Your task to perform on an android device: Open Maps and search for coffee Image 0: 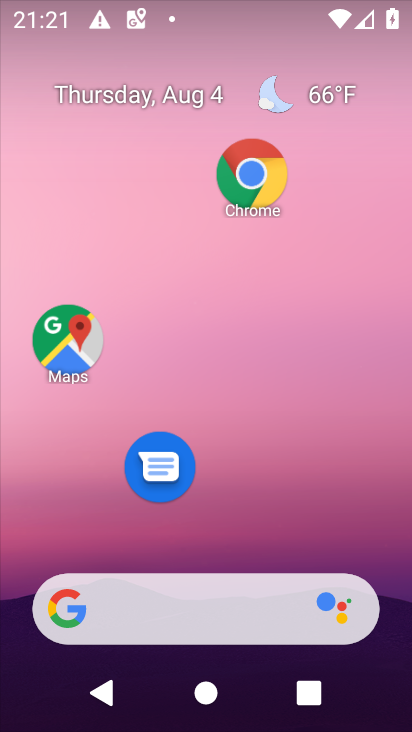
Step 0: drag from (299, 523) to (332, 40)
Your task to perform on an android device: Open Maps and search for coffee Image 1: 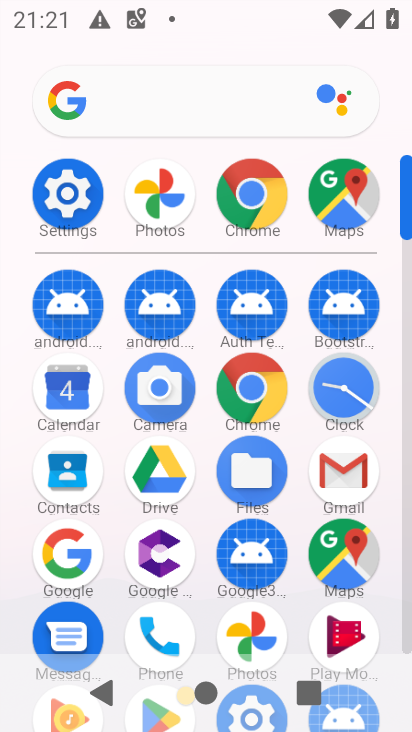
Step 1: click (350, 197)
Your task to perform on an android device: Open Maps and search for coffee Image 2: 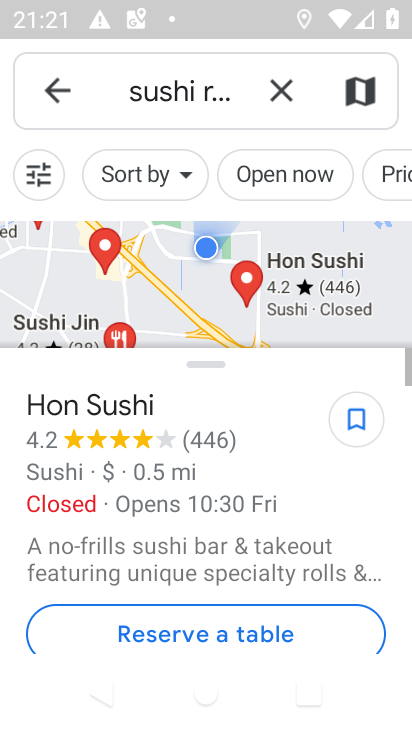
Step 2: click (270, 96)
Your task to perform on an android device: Open Maps and search for coffee Image 3: 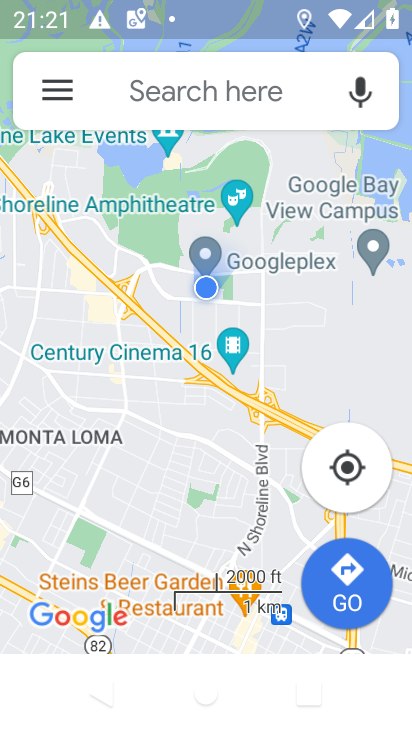
Step 3: click (226, 76)
Your task to perform on an android device: Open Maps and search for coffee Image 4: 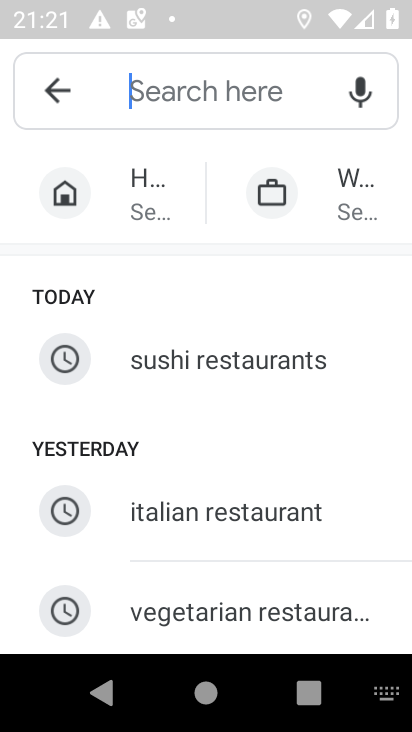
Step 4: type "coffee"
Your task to perform on an android device: Open Maps and search for coffee Image 5: 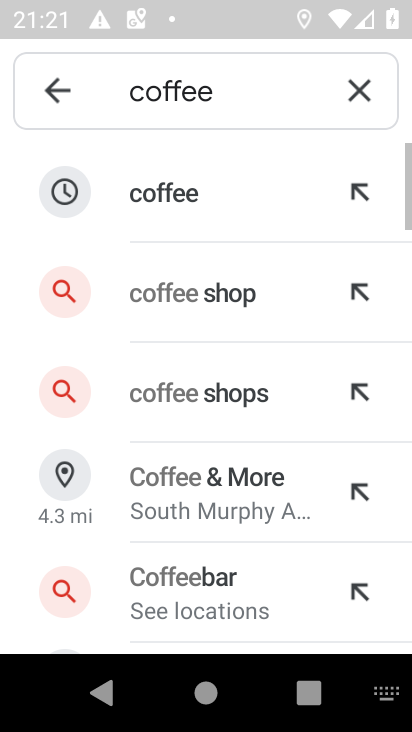
Step 5: click (155, 190)
Your task to perform on an android device: Open Maps and search for coffee Image 6: 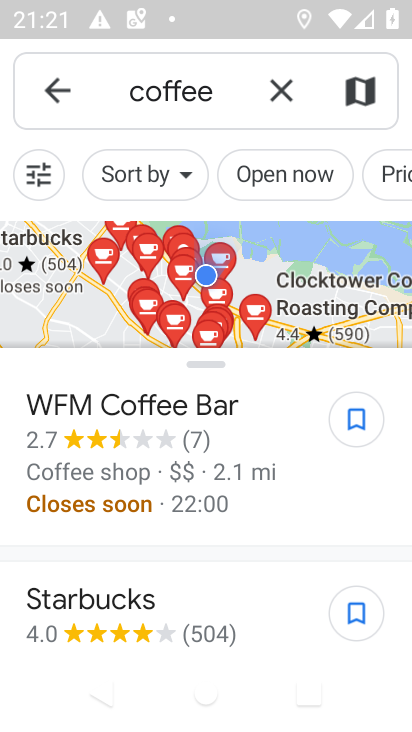
Step 6: task complete